Your task to perform on an android device: What's on my calendar today? Image 0: 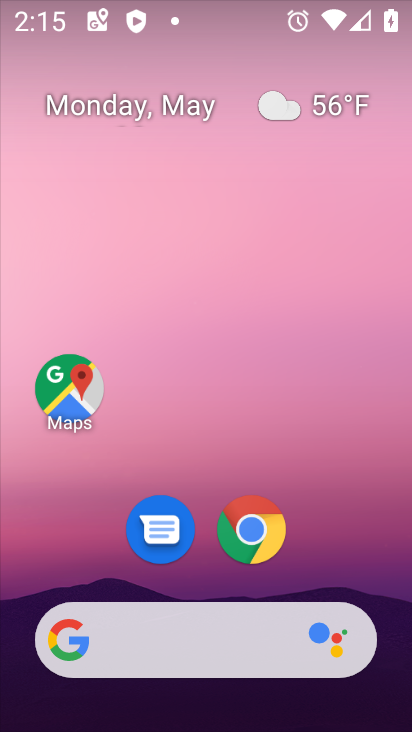
Step 0: drag from (203, 581) to (170, 141)
Your task to perform on an android device: What's on my calendar today? Image 1: 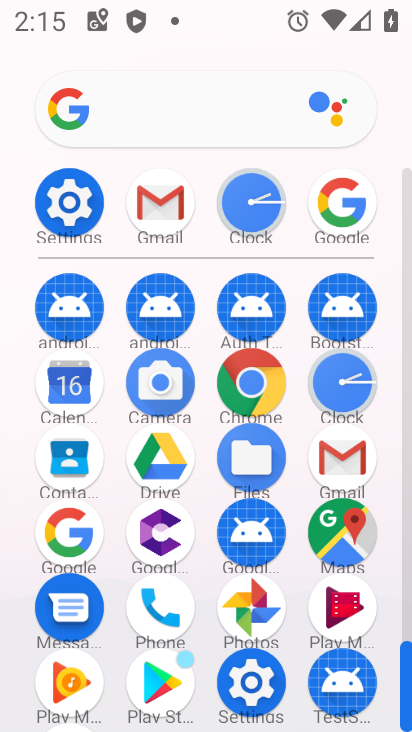
Step 1: click (63, 380)
Your task to perform on an android device: What's on my calendar today? Image 2: 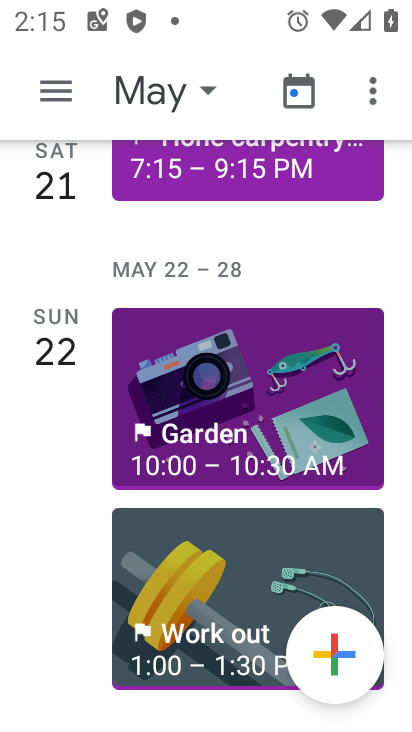
Step 2: click (153, 106)
Your task to perform on an android device: What's on my calendar today? Image 3: 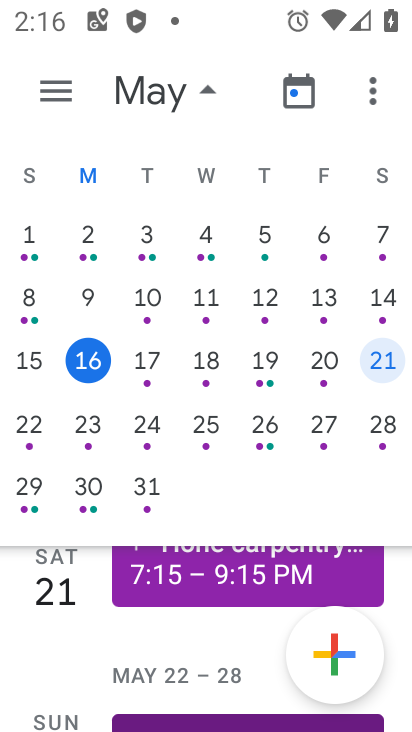
Step 3: click (80, 374)
Your task to perform on an android device: What's on my calendar today? Image 4: 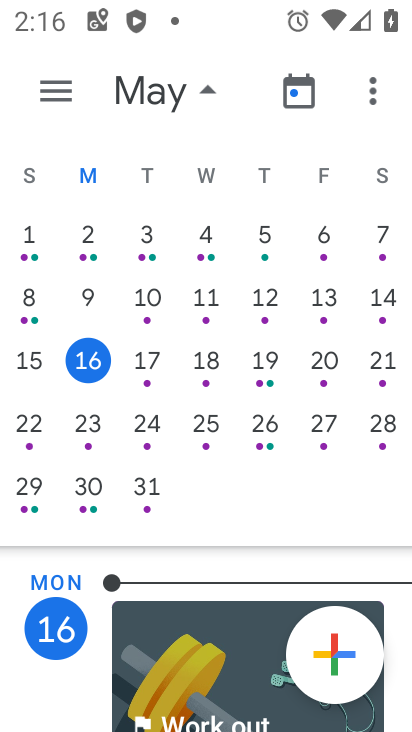
Step 4: task complete